Your task to perform on an android device: Open Chrome and go to settings Image 0: 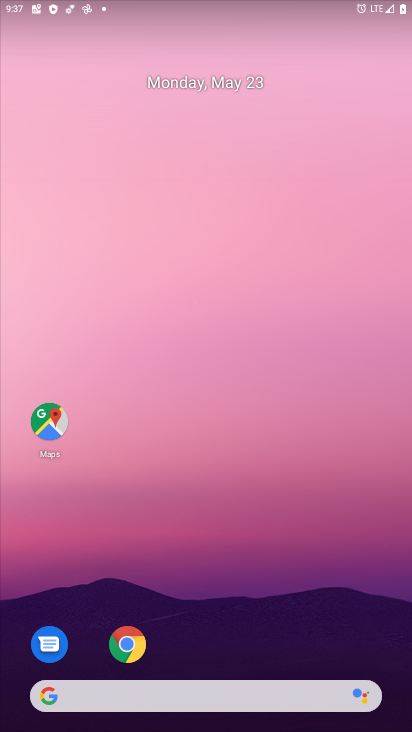
Step 0: click (136, 650)
Your task to perform on an android device: Open Chrome and go to settings Image 1: 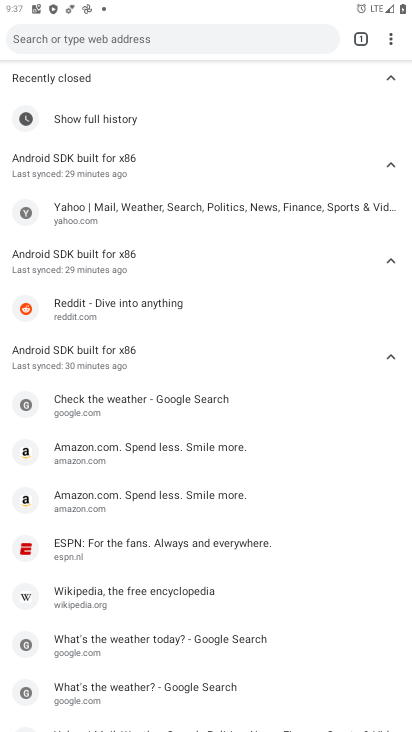
Step 1: click (393, 35)
Your task to perform on an android device: Open Chrome and go to settings Image 2: 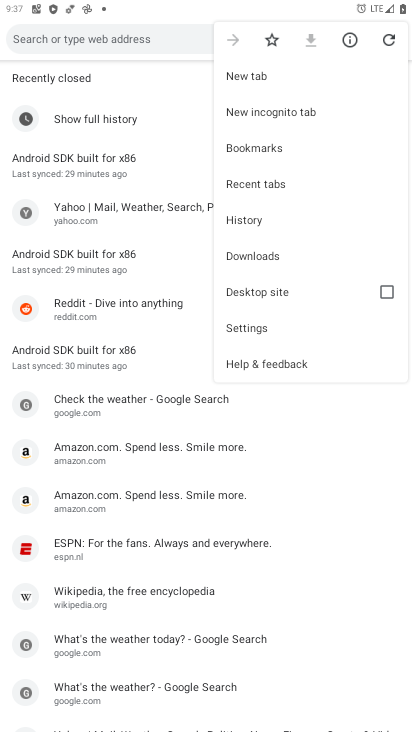
Step 2: click (271, 338)
Your task to perform on an android device: Open Chrome and go to settings Image 3: 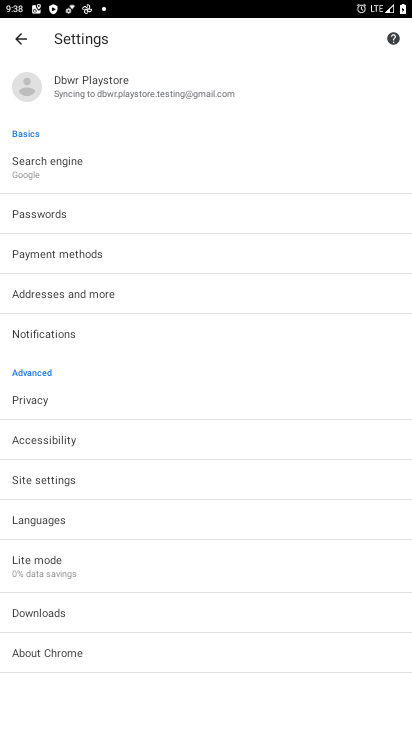
Step 3: task complete